Your task to perform on an android device: Search for vegetarian restaurants on Maps Image 0: 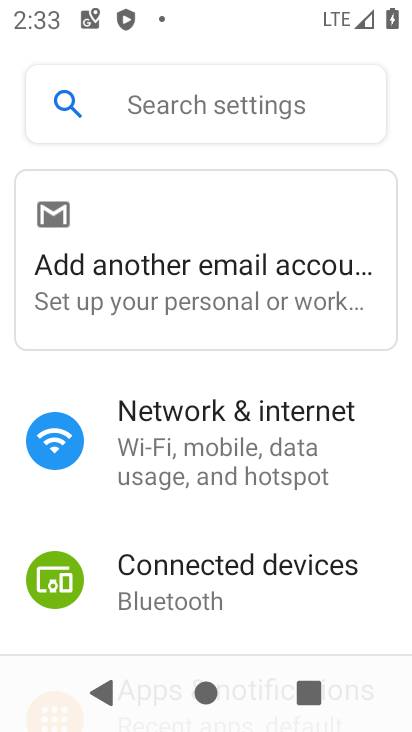
Step 0: press home button
Your task to perform on an android device: Search for vegetarian restaurants on Maps Image 1: 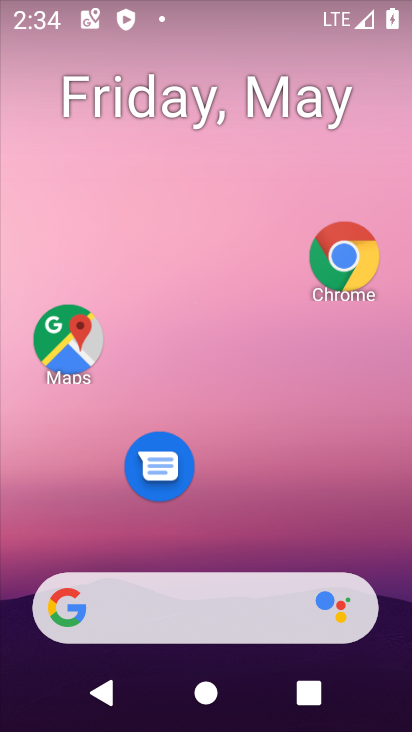
Step 1: click (69, 316)
Your task to perform on an android device: Search for vegetarian restaurants on Maps Image 2: 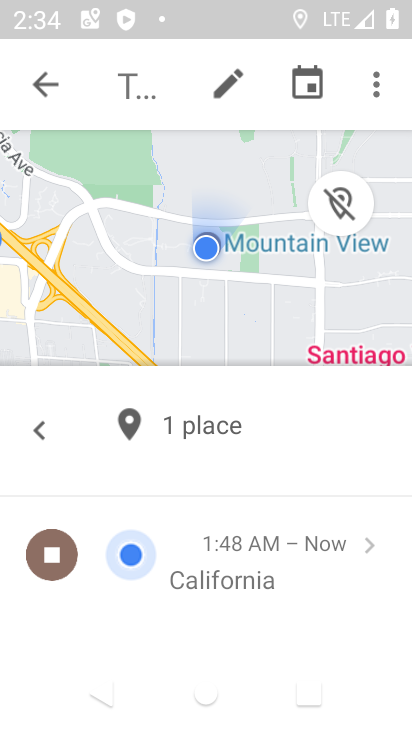
Step 2: click (47, 99)
Your task to perform on an android device: Search for vegetarian restaurants on Maps Image 3: 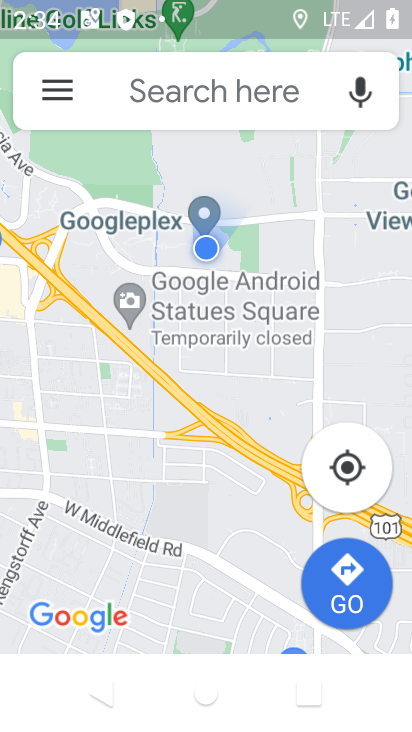
Step 3: click (129, 95)
Your task to perform on an android device: Search for vegetarian restaurants on Maps Image 4: 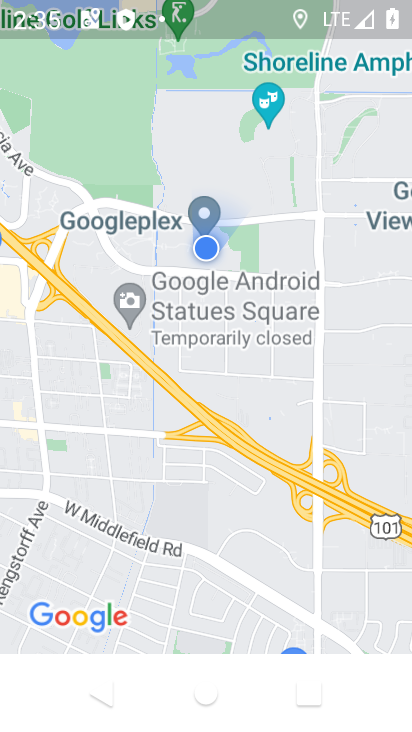
Step 4: press back button
Your task to perform on an android device: Search for vegetarian restaurants on Maps Image 5: 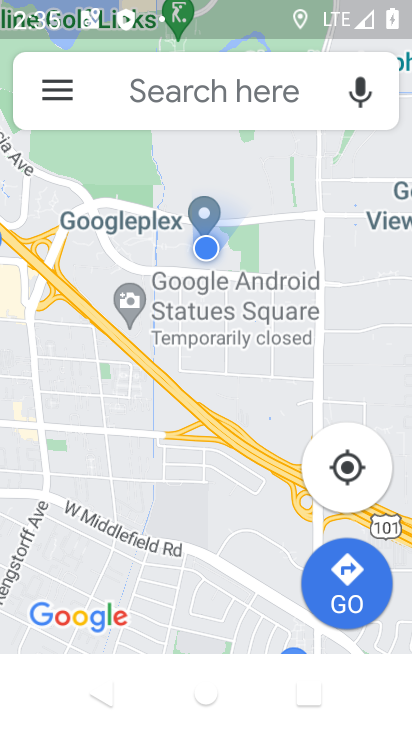
Step 5: click (155, 102)
Your task to perform on an android device: Search for vegetarian restaurants on Maps Image 6: 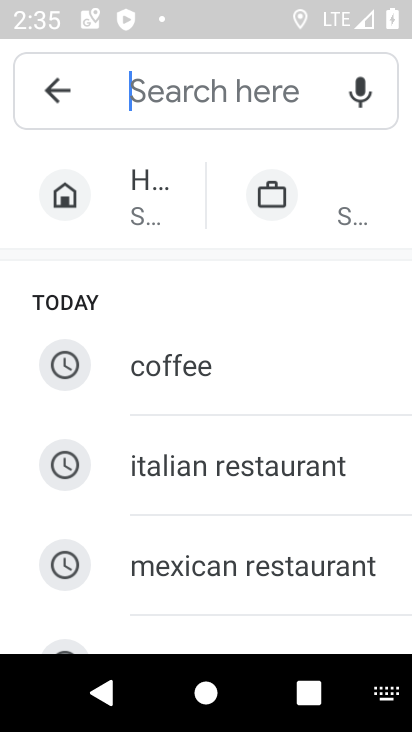
Step 6: type "vegetarian restaurants"
Your task to perform on an android device: Search for vegetarian restaurants on Maps Image 7: 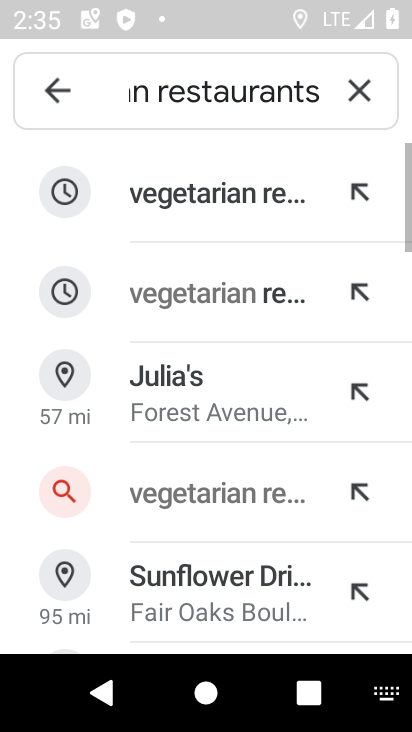
Step 7: click (127, 199)
Your task to perform on an android device: Search for vegetarian restaurants on Maps Image 8: 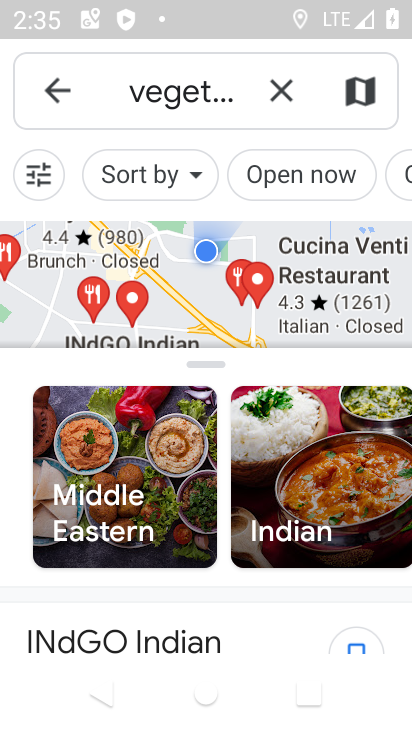
Step 8: task complete